Your task to perform on an android device: Play the last video I watched on Youtube Image 0: 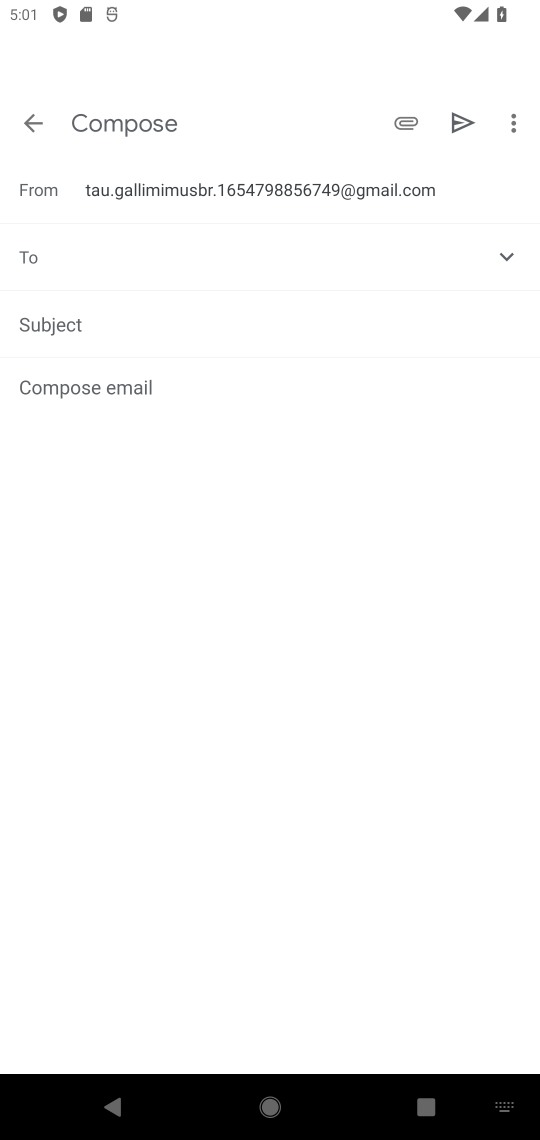
Step 0: press home button
Your task to perform on an android device: Play the last video I watched on Youtube Image 1: 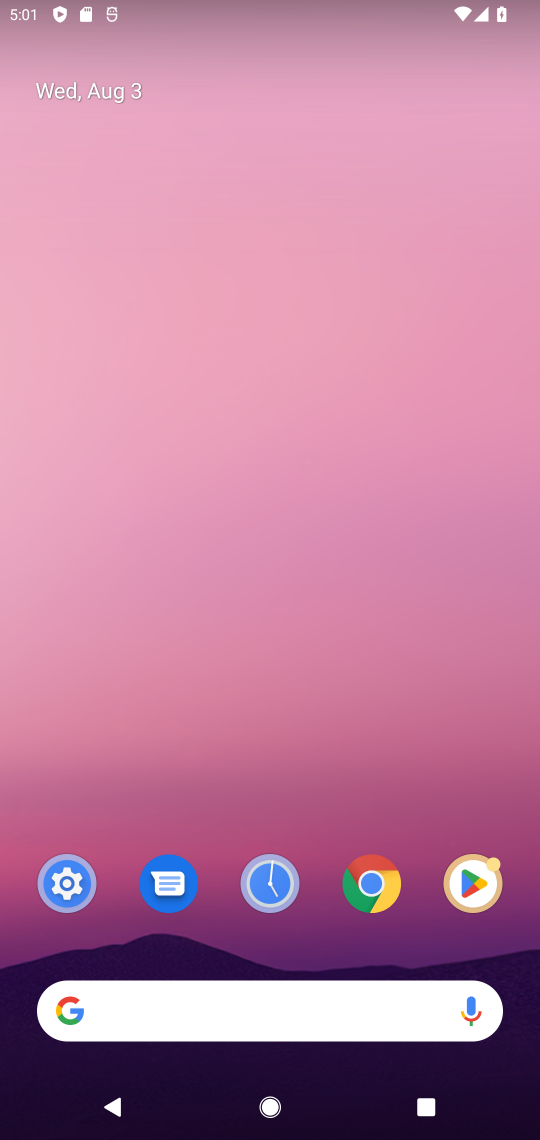
Step 1: drag from (217, 985) to (441, 41)
Your task to perform on an android device: Play the last video I watched on Youtube Image 2: 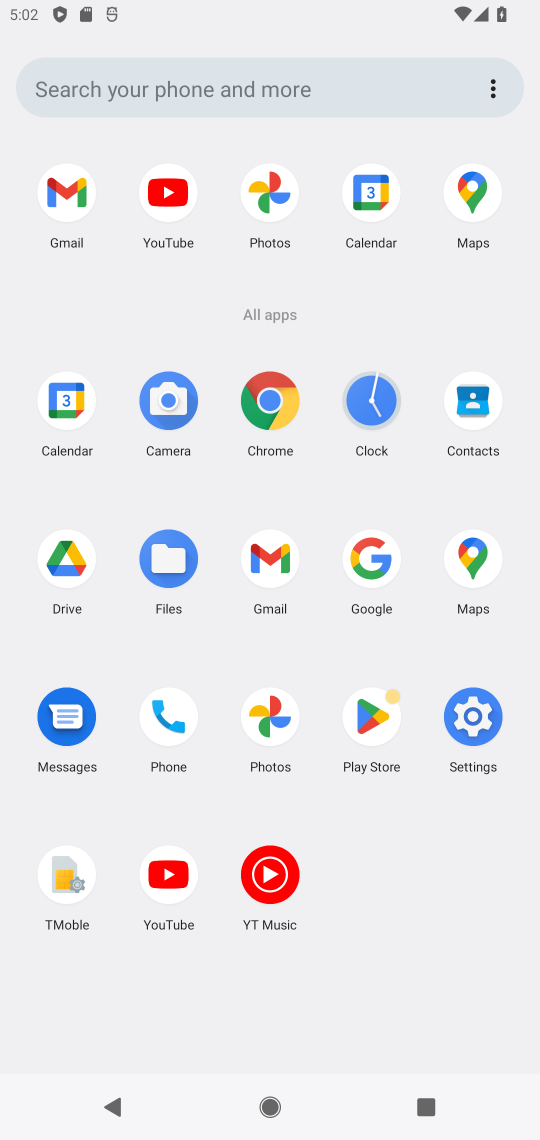
Step 2: click (156, 877)
Your task to perform on an android device: Play the last video I watched on Youtube Image 3: 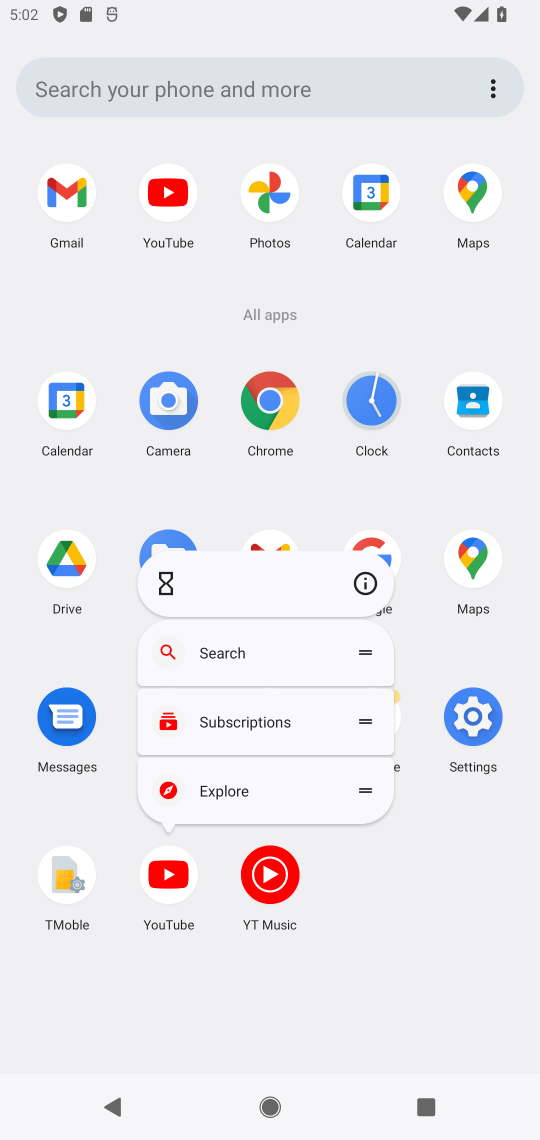
Step 3: click (162, 891)
Your task to perform on an android device: Play the last video I watched on Youtube Image 4: 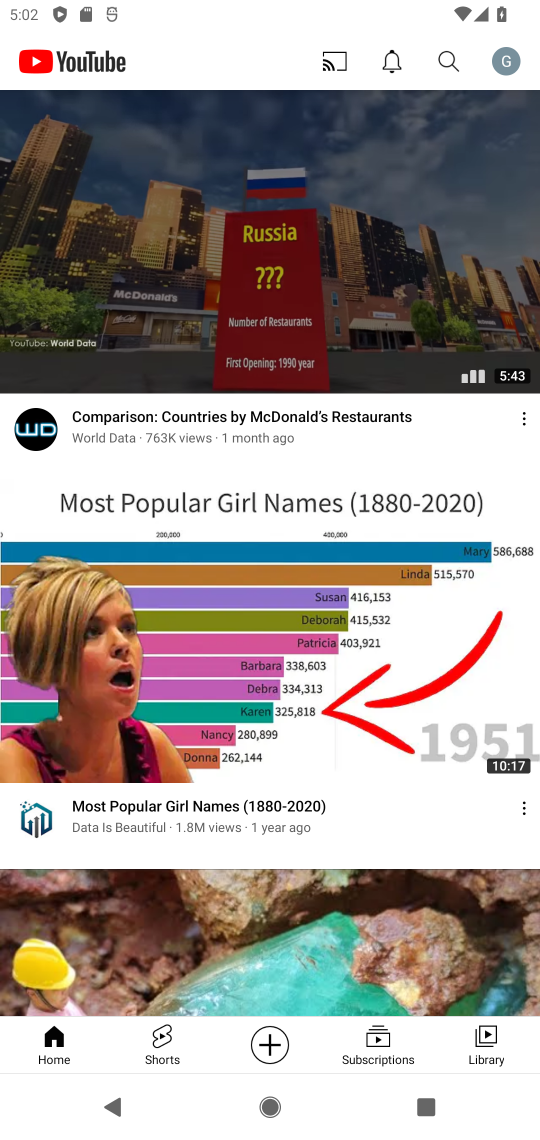
Step 4: click (472, 1043)
Your task to perform on an android device: Play the last video I watched on Youtube Image 5: 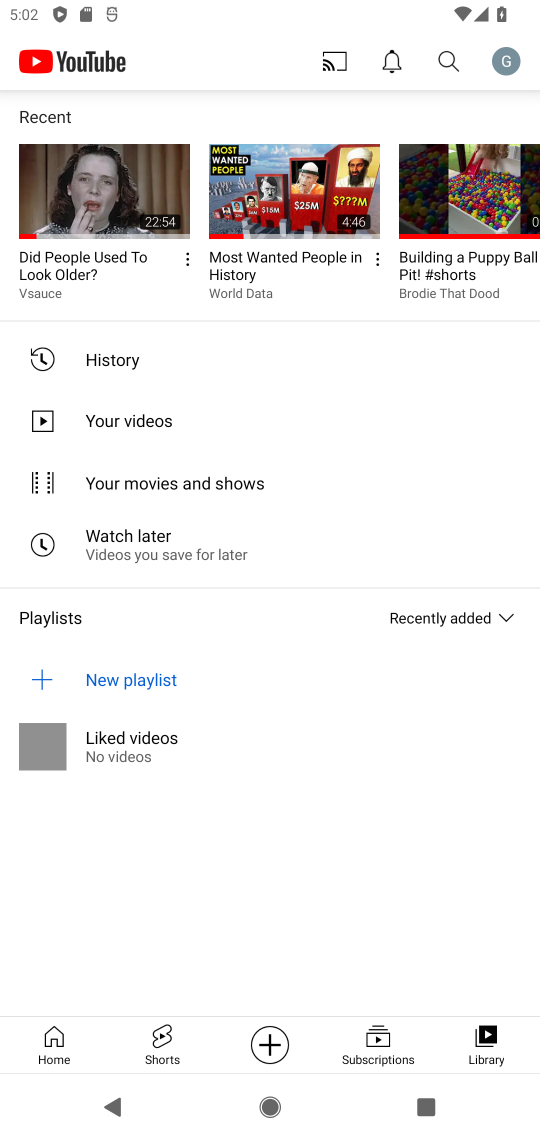
Step 5: click (73, 164)
Your task to perform on an android device: Play the last video I watched on Youtube Image 6: 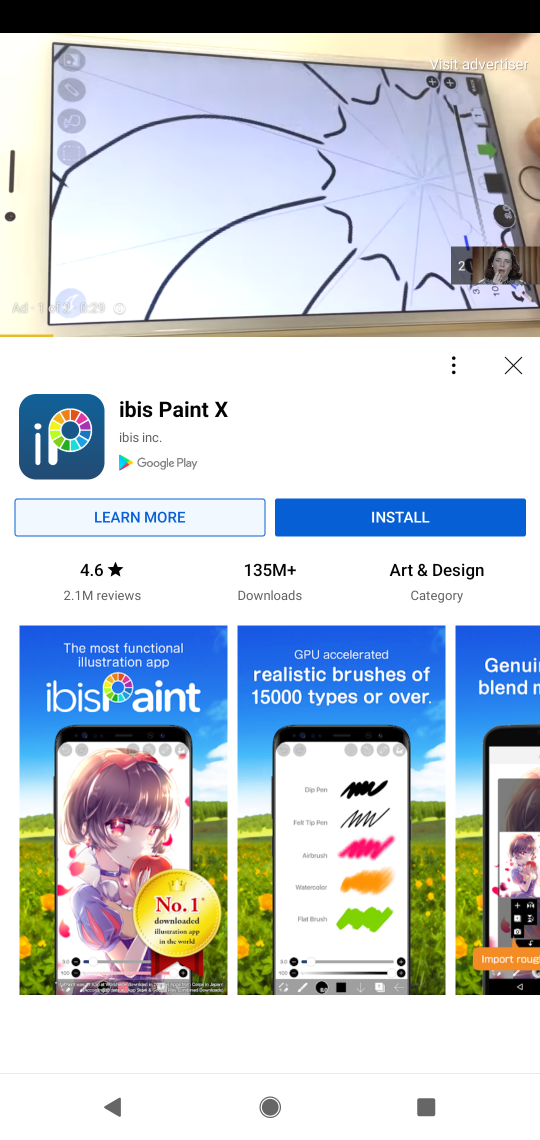
Step 6: task complete